Your task to perform on an android device: Go to network settings Image 0: 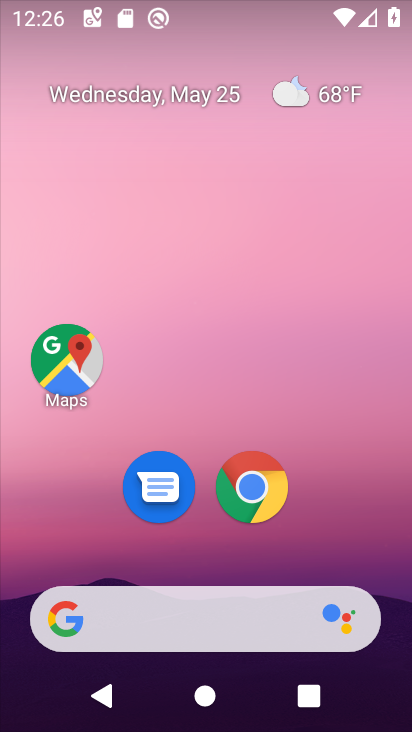
Step 0: drag from (247, 543) to (289, 49)
Your task to perform on an android device: Go to network settings Image 1: 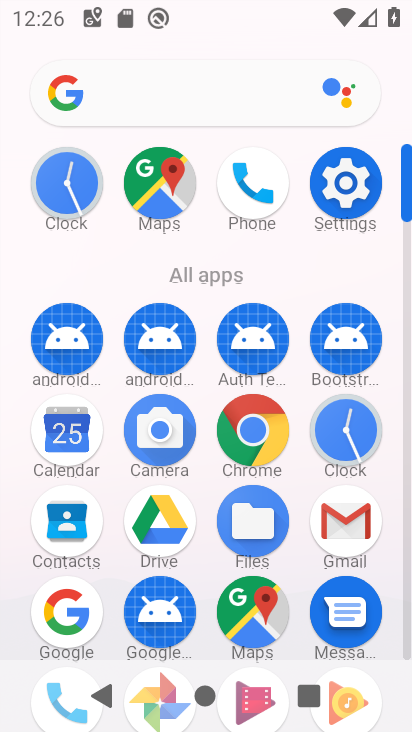
Step 1: click (331, 181)
Your task to perform on an android device: Go to network settings Image 2: 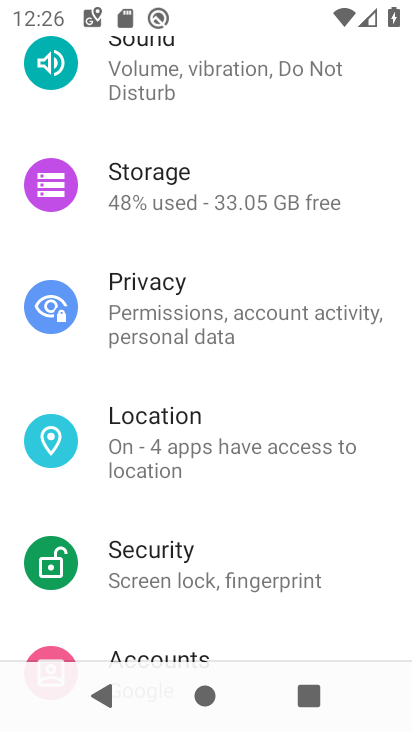
Step 2: drag from (221, 113) to (118, 692)
Your task to perform on an android device: Go to network settings Image 3: 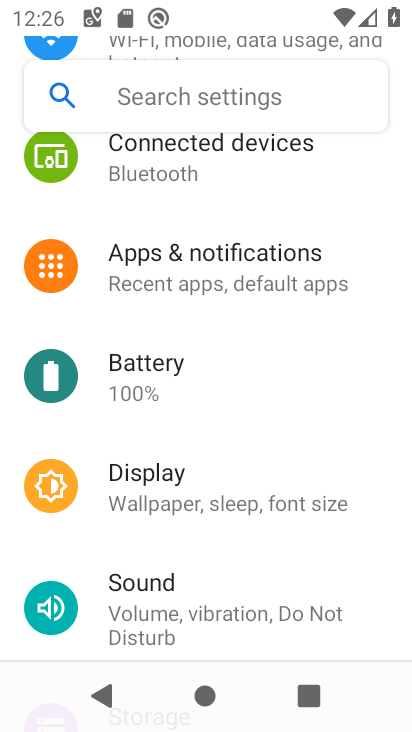
Step 3: drag from (172, 281) to (187, 716)
Your task to perform on an android device: Go to network settings Image 4: 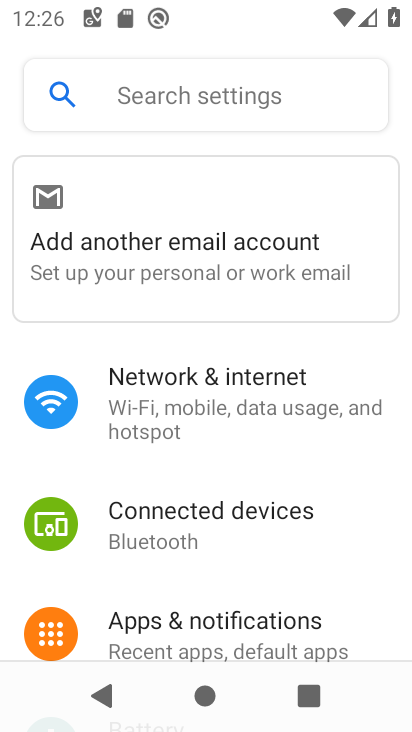
Step 4: click (180, 387)
Your task to perform on an android device: Go to network settings Image 5: 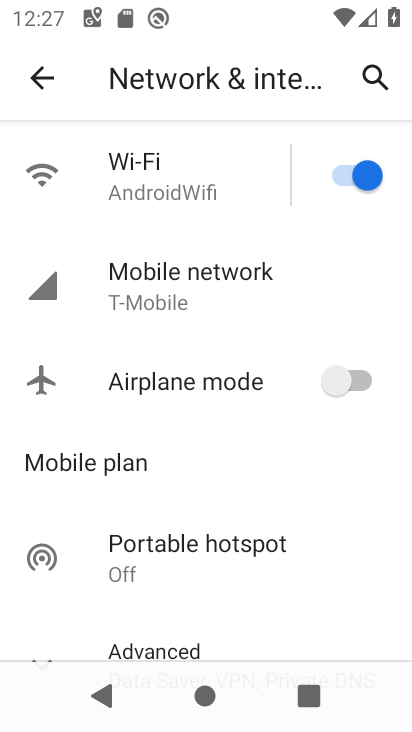
Step 5: task complete